Your task to perform on an android device: Go to Google maps Image 0: 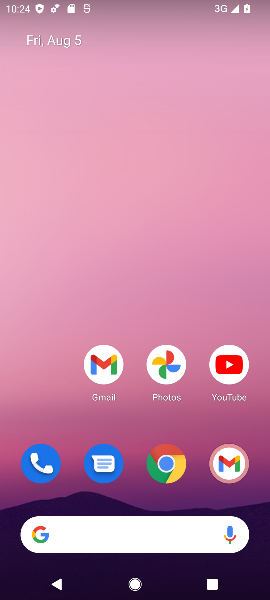
Step 0: drag from (144, 480) to (143, 84)
Your task to perform on an android device: Go to Google maps Image 1: 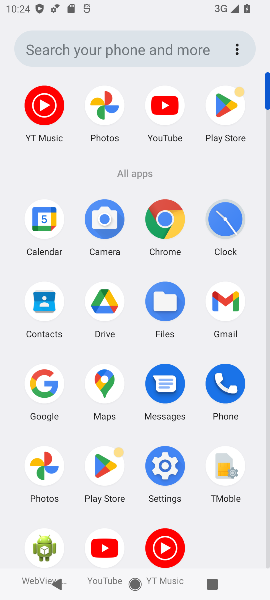
Step 1: click (97, 385)
Your task to perform on an android device: Go to Google maps Image 2: 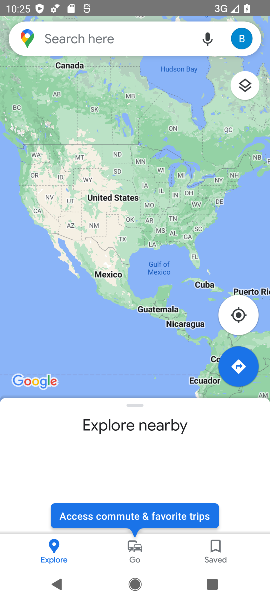
Step 2: task complete